Your task to perform on an android device: turn notification dots off Image 0: 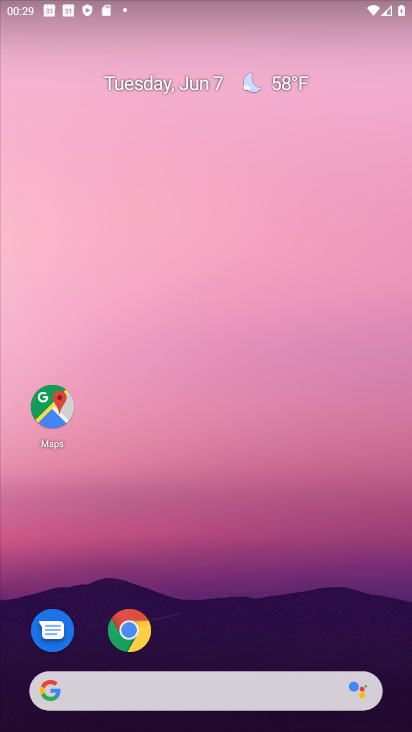
Step 0: drag from (361, 621) to (325, 130)
Your task to perform on an android device: turn notification dots off Image 1: 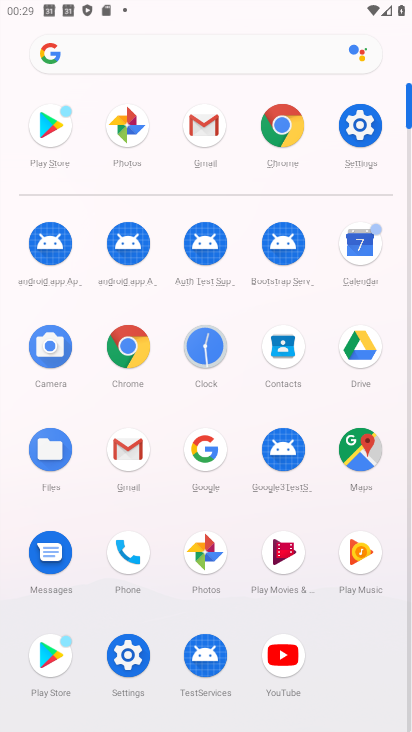
Step 1: click (353, 129)
Your task to perform on an android device: turn notification dots off Image 2: 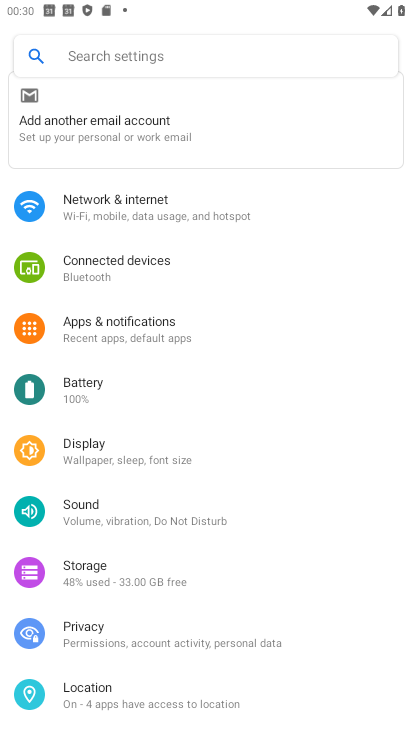
Step 2: drag from (275, 535) to (320, 271)
Your task to perform on an android device: turn notification dots off Image 3: 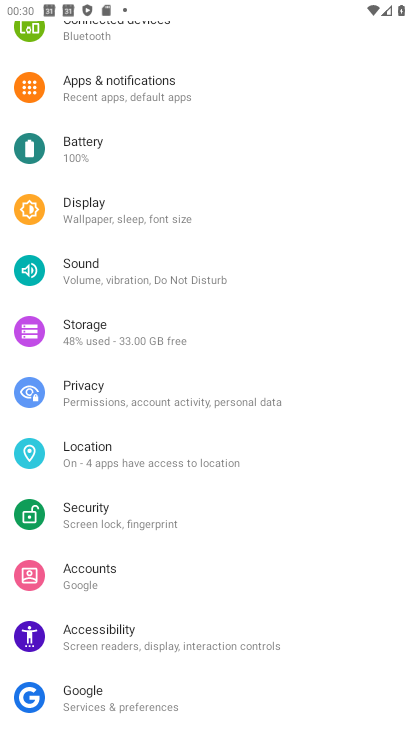
Step 3: click (191, 76)
Your task to perform on an android device: turn notification dots off Image 4: 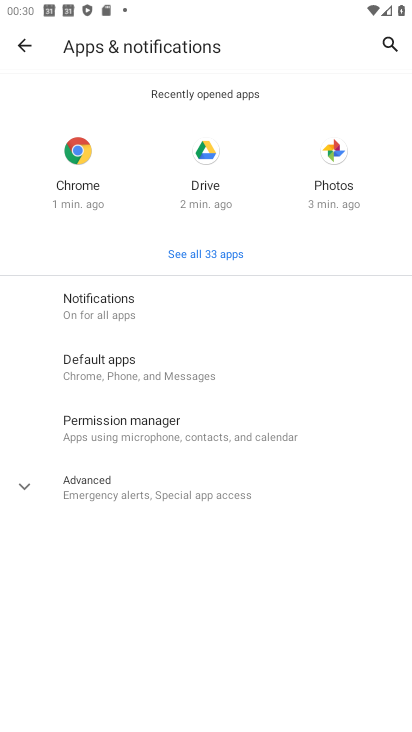
Step 4: click (133, 469)
Your task to perform on an android device: turn notification dots off Image 5: 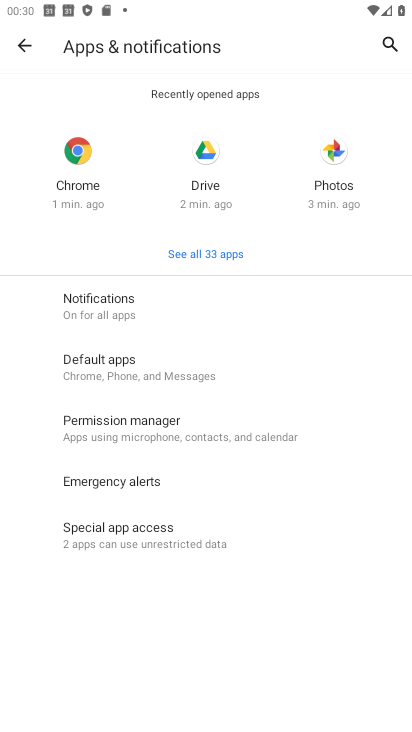
Step 5: click (167, 525)
Your task to perform on an android device: turn notification dots off Image 6: 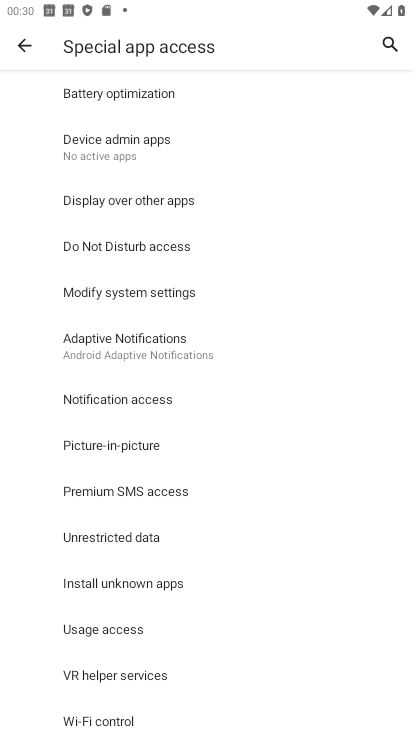
Step 6: click (39, 47)
Your task to perform on an android device: turn notification dots off Image 7: 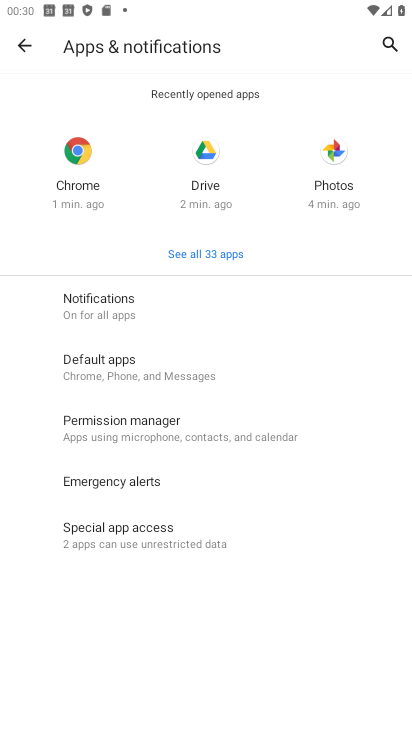
Step 7: click (96, 311)
Your task to perform on an android device: turn notification dots off Image 8: 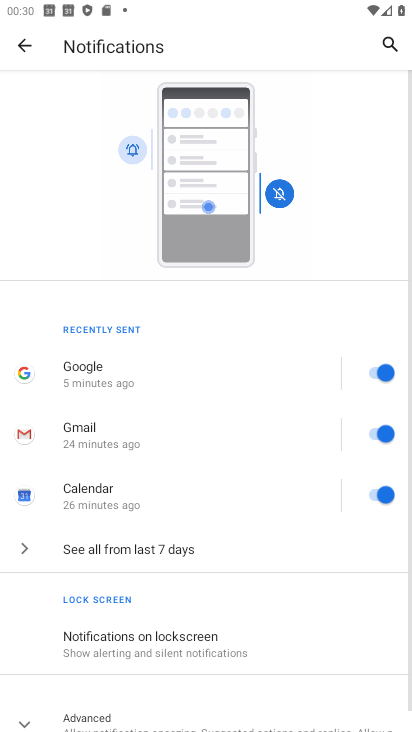
Step 8: drag from (215, 676) to (241, 289)
Your task to perform on an android device: turn notification dots off Image 9: 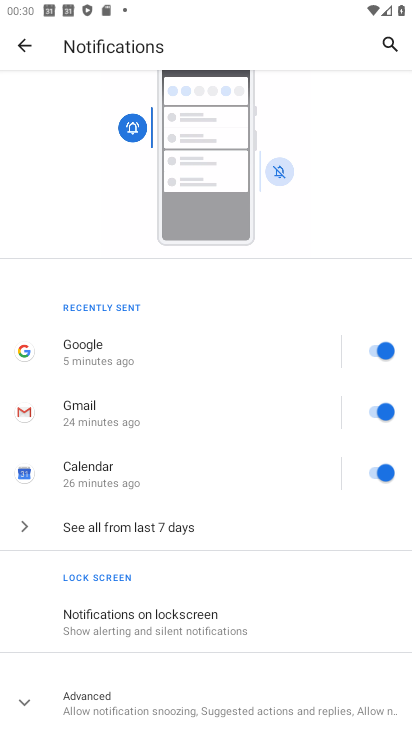
Step 9: click (232, 686)
Your task to perform on an android device: turn notification dots off Image 10: 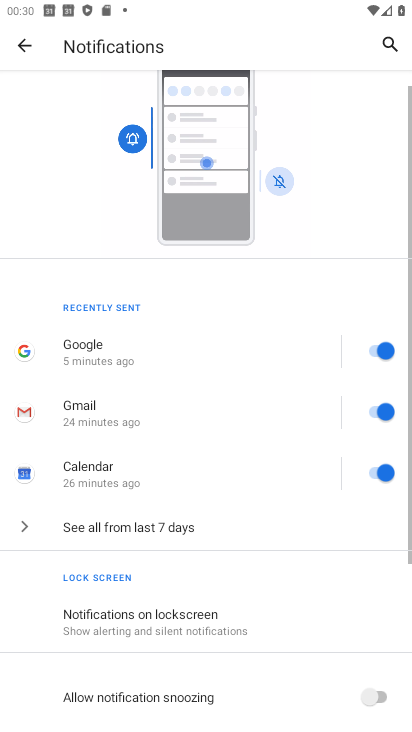
Step 10: drag from (237, 693) to (242, 480)
Your task to perform on an android device: turn notification dots off Image 11: 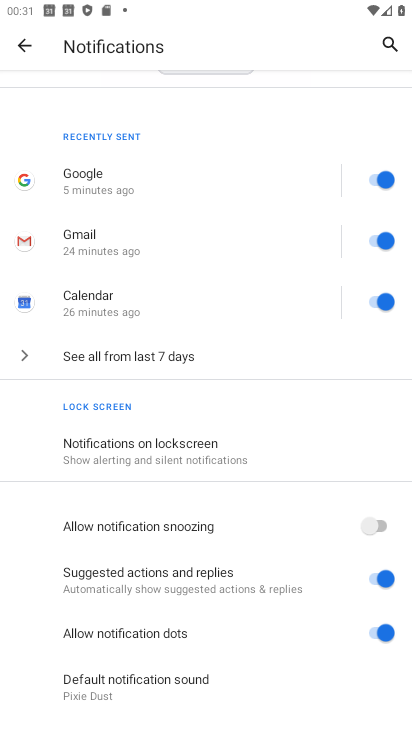
Step 11: click (379, 629)
Your task to perform on an android device: turn notification dots off Image 12: 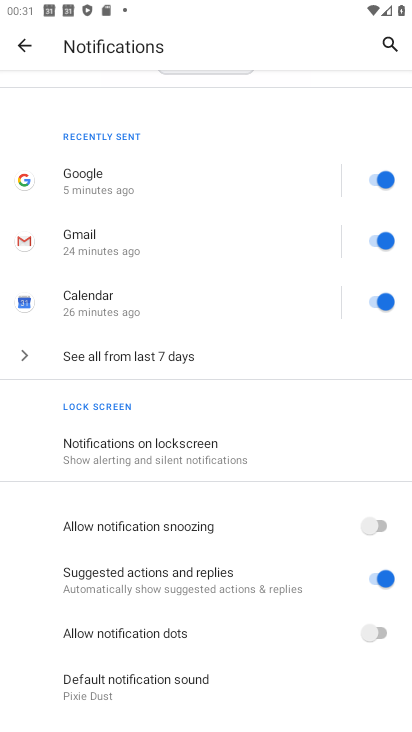
Step 12: task complete